Your task to perform on an android device: turn on sleep mode Image 0: 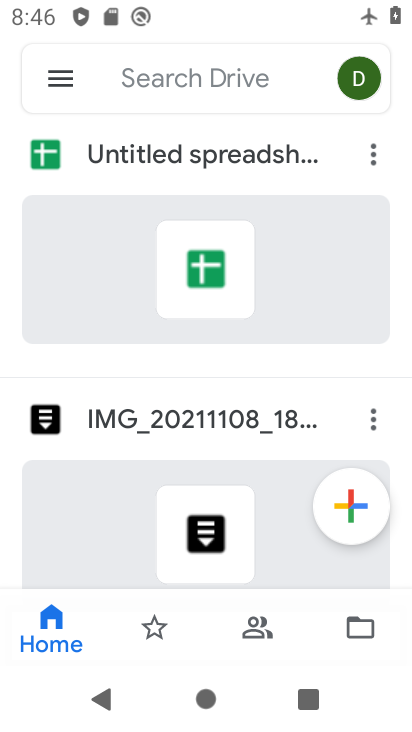
Step 0: press home button
Your task to perform on an android device: turn on sleep mode Image 1: 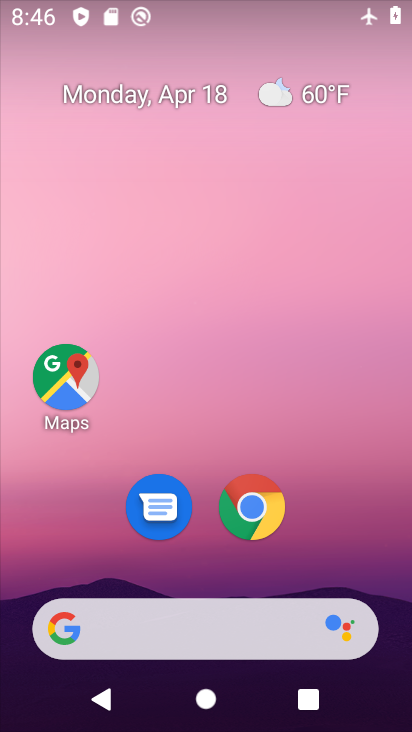
Step 1: drag from (311, 543) to (314, 149)
Your task to perform on an android device: turn on sleep mode Image 2: 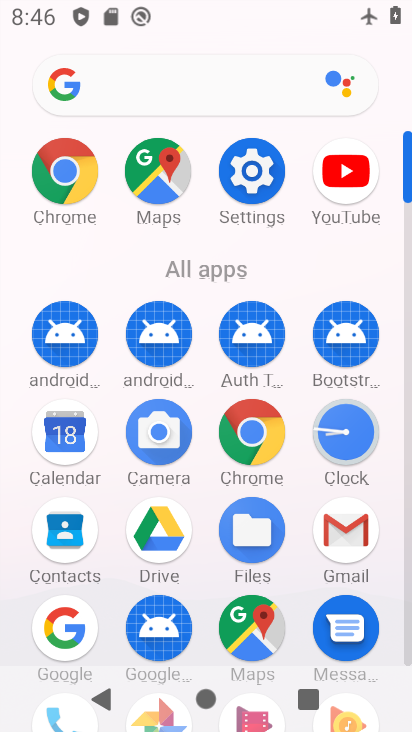
Step 2: drag from (208, 616) to (227, 313)
Your task to perform on an android device: turn on sleep mode Image 3: 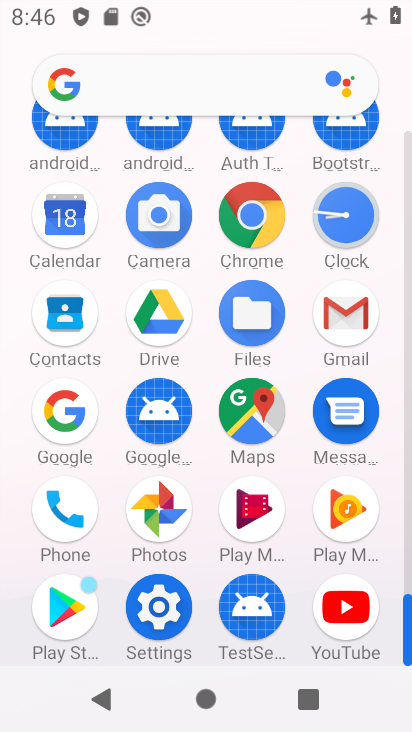
Step 3: click (146, 599)
Your task to perform on an android device: turn on sleep mode Image 4: 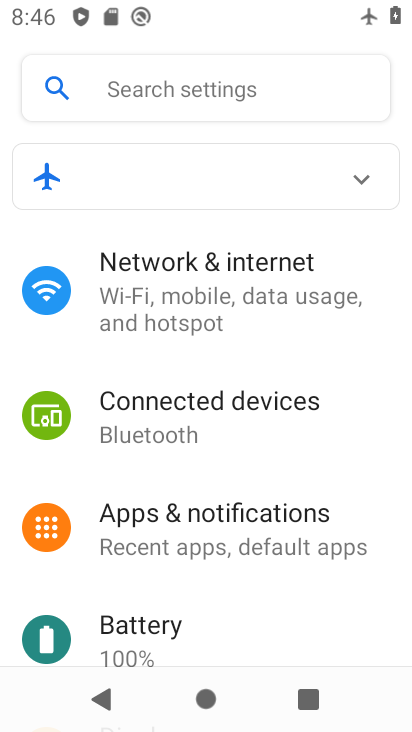
Step 4: drag from (277, 624) to (272, 323)
Your task to perform on an android device: turn on sleep mode Image 5: 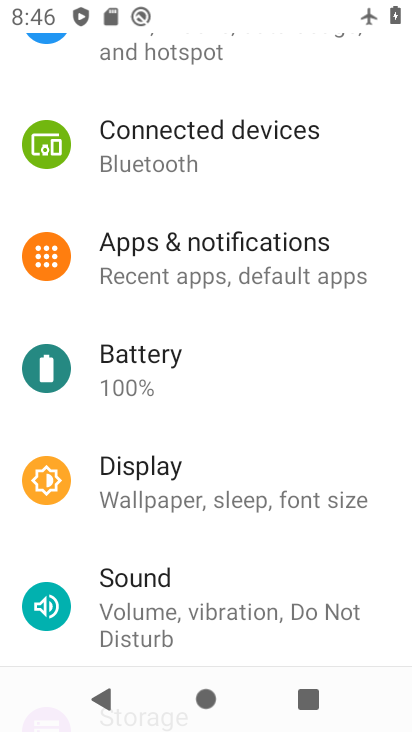
Step 5: click (260, 509)
Your task to perform on an android device: turn on sleep mode Image 6: 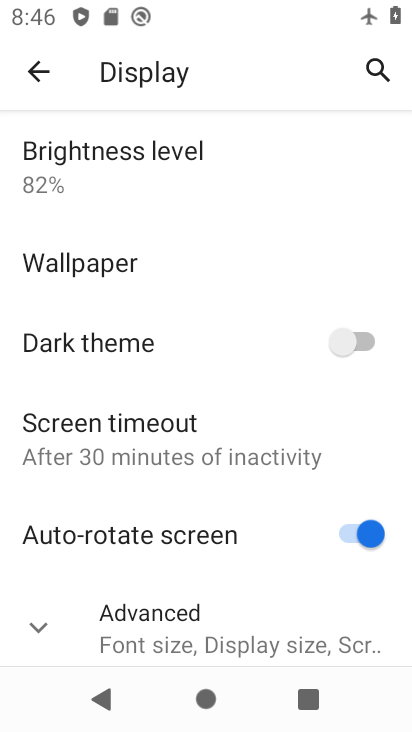
Step 6: drag from (261, 610) to (263, 398)
Your task to perform on an android device: turn on sleep mode Image 7: 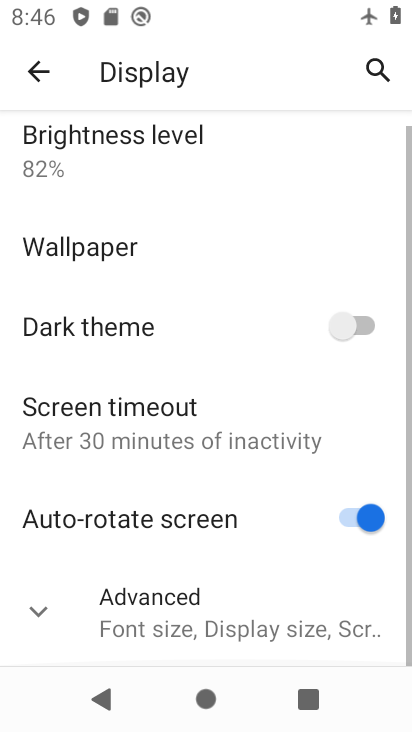
Step 7: click (47, 613)
Your task to perform on an android device: turn on sleep mode Image 8: 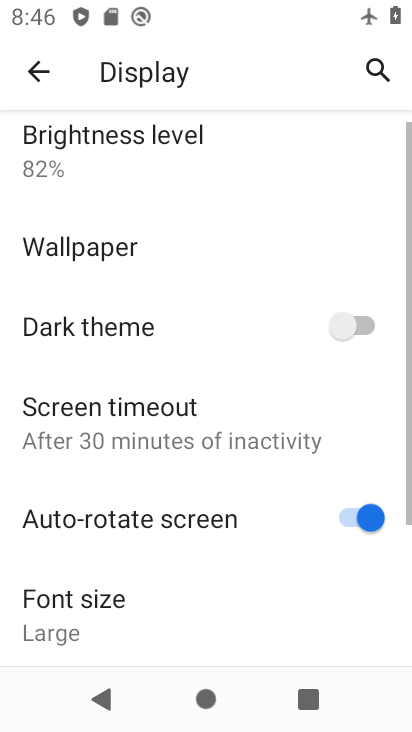
Step 8: task complete